Your task to perform on an android device: Find coffee shops on Maps Image 0: 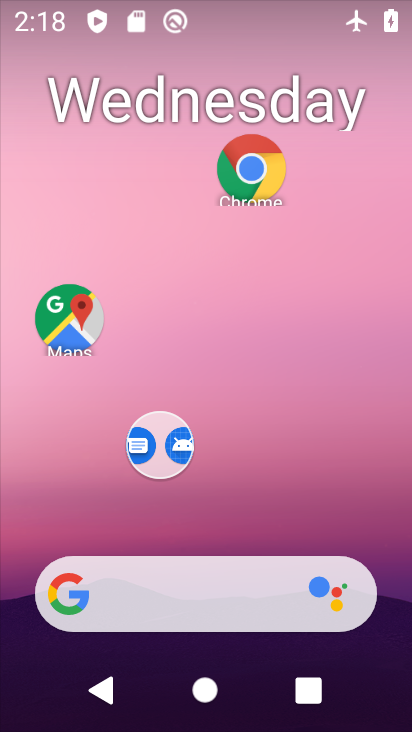
Step 0: click (55, 329)
Your task to perform on an android device: Find coffee shops on Maps Image 1: 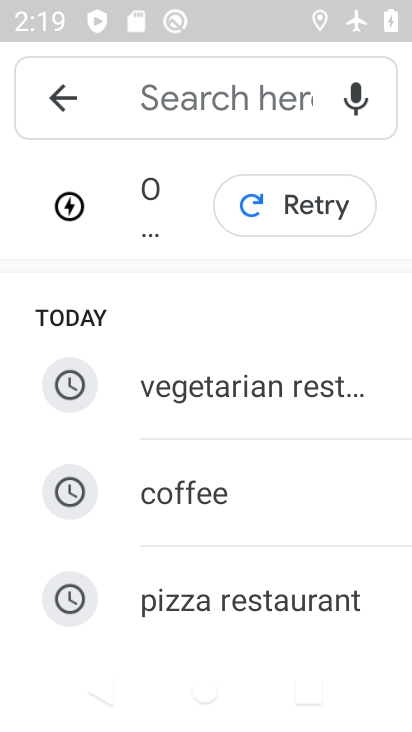
Step 1: click (163, 493)
Your task to perform on an android device: Find coffee shops on Maps Image 2: 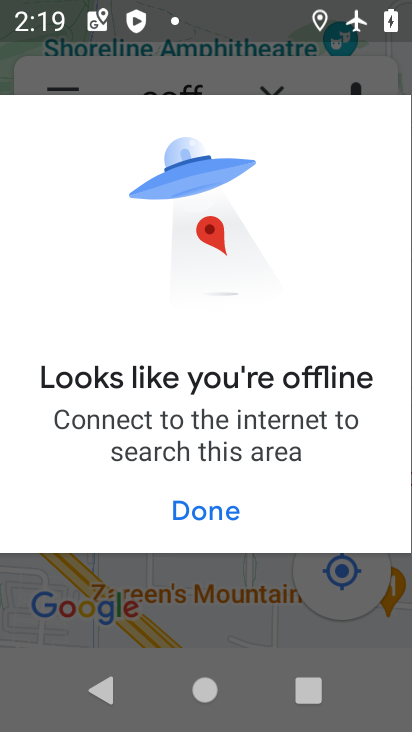
Step 2: task complete